Your task to perform on an android device: snooze an email in the gmail app Image 0: 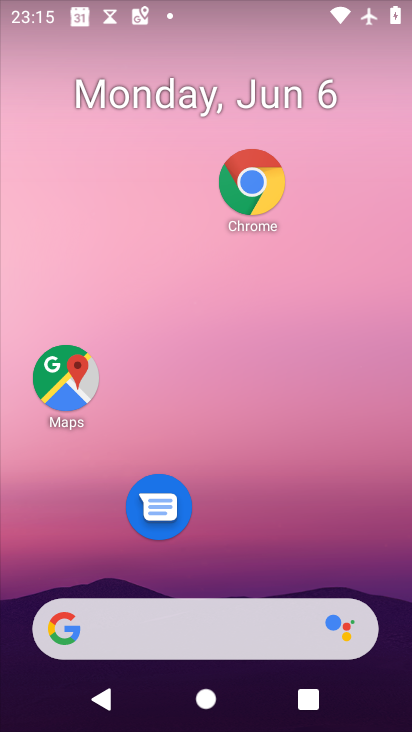
Step 0: drag from (244, 576) to (242, 275)
Your task to perform on an android device: snooze an email in the gmail app Image 1: 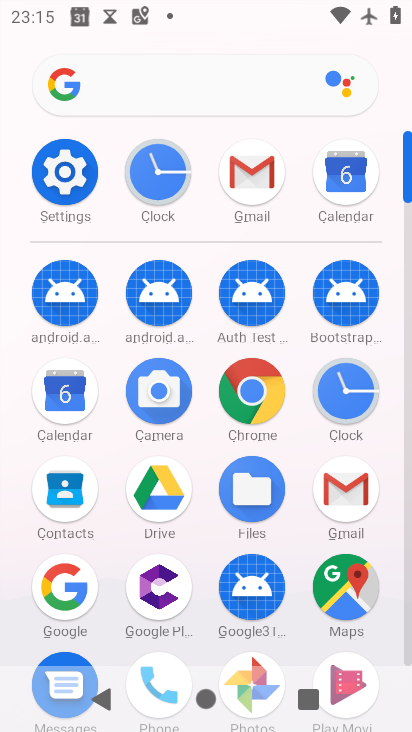
Step 1: click (332, 484)
Your task to perform on an android device: snooze an email in the gmail app Image 2: 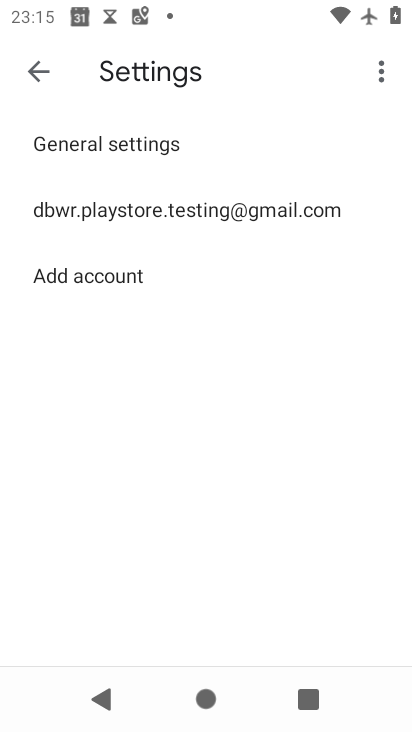
Step 2: click (42, 76)
Your task to perform on an android device: snooze an email in the gmail app Image 3: 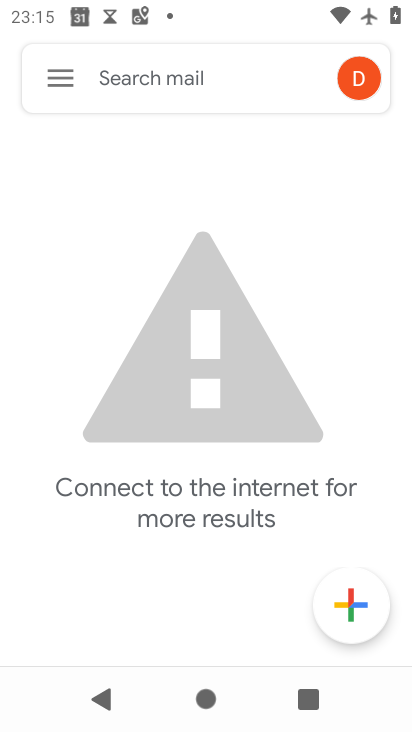
Step 3: click (47, 76)
Your task to perform on an android device: snooze an email in the gmail app Image 4: 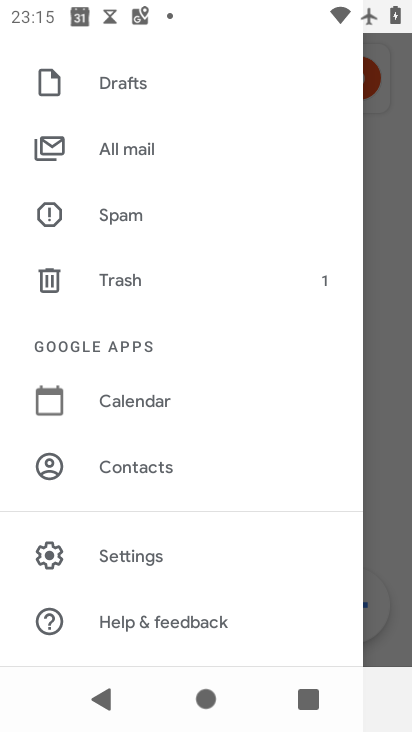
Step 4: drag from (148, 193) to (155, 507)
Your task to perform on an android device: snooze an email in the gmail app Image 5: 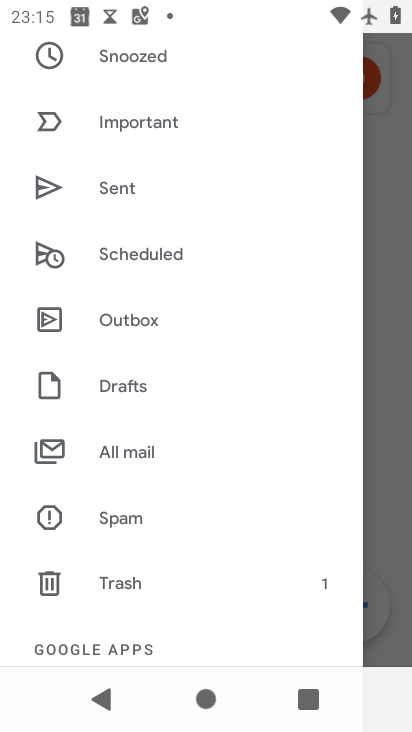
Step 5: click (149, 57)
Your task to perform on an android device: snooze an email in the gmail app Image 6: 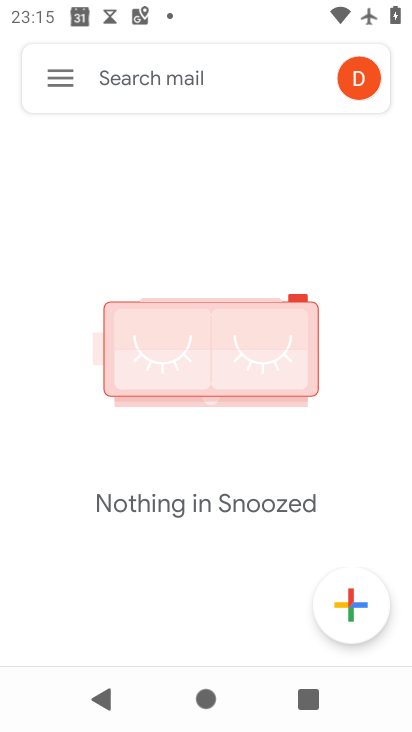
Step 6: task complete